Your task to perform on an android device: change text size in settings app Image 0: 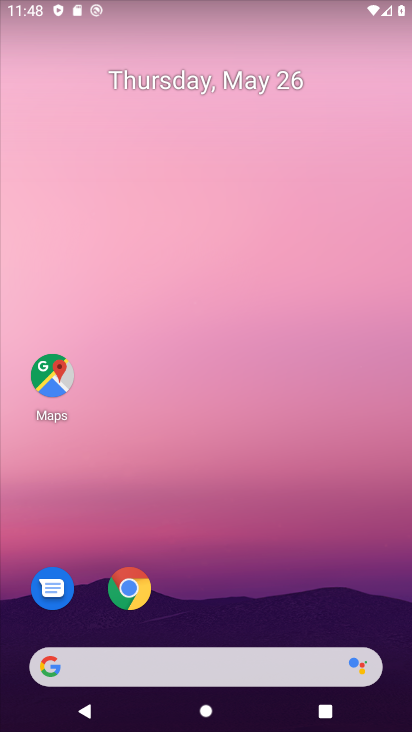
Step 0: drag from (181, 621) to (111, 11)
Your task to perform on an android device: change text size in settings app Image 1: 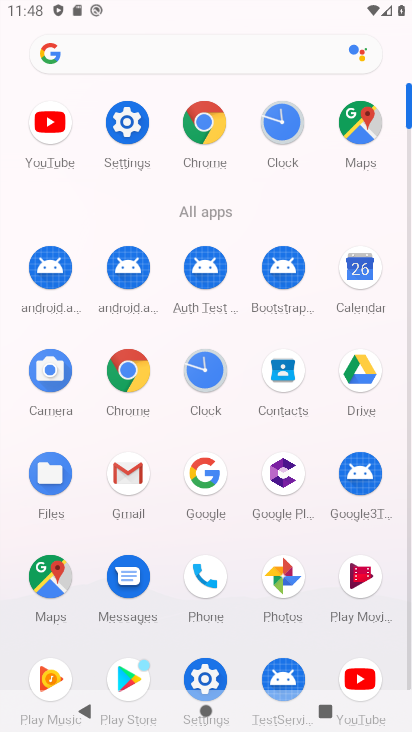
Step 1: click (122, 119)
Your task to perform on an android device: change text size in settings app Image 2: 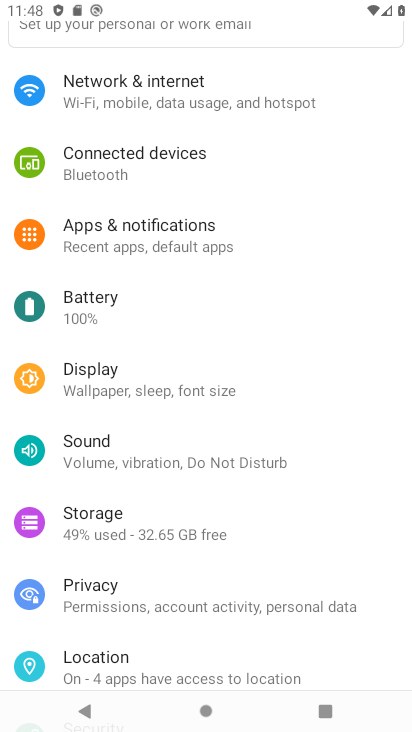
Step 2: click (105, 367)
Your task to perform on an android device: change text size in settings app Image 3: 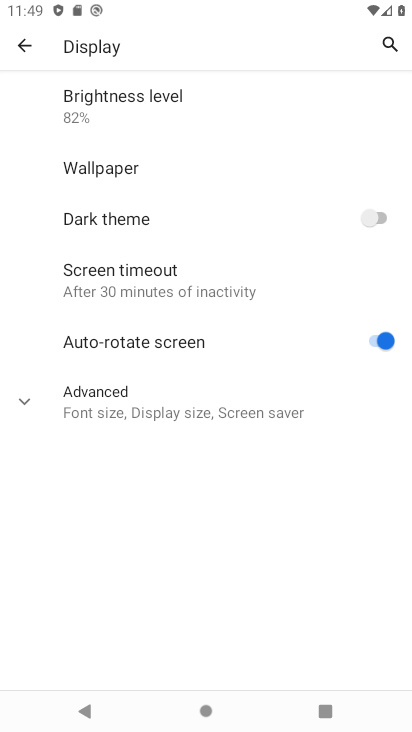
Step 3: click (108, 381)
Your task to perform on an android device: change text size in settings app Image 4: 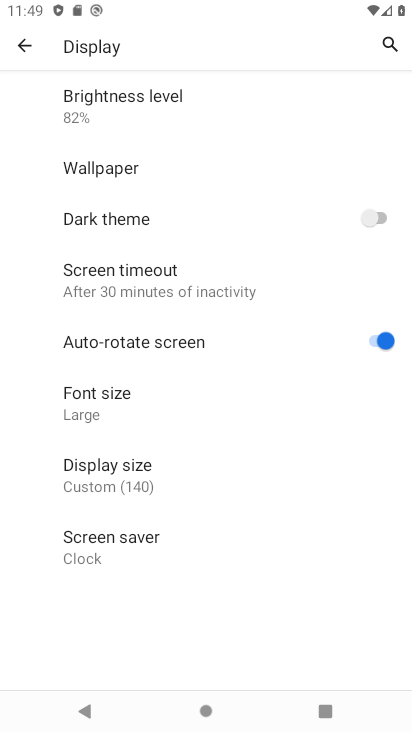
Step 4: click (105, 432)
Your task to perform on an android device: change text size in settings app Image 5: 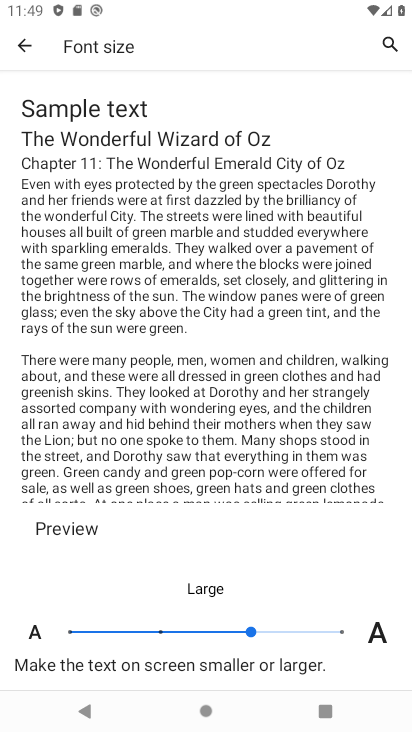
Step 5: click (168, 626)
Your task to perform on an android device: change text size in settings app Image 6: 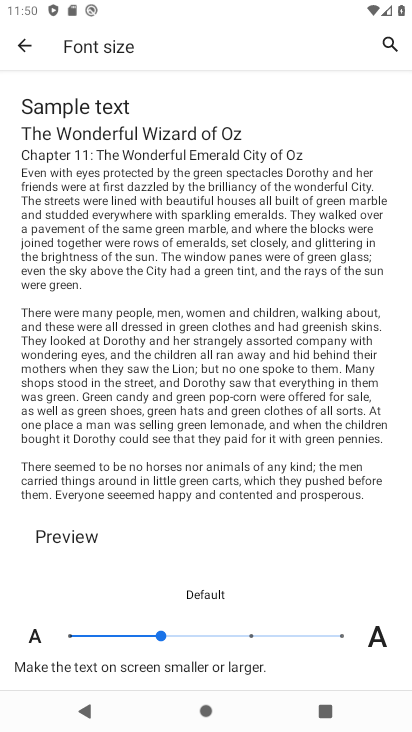
Step 6: task complete